Your task to perform on an android device: Open Amazon Image 0: 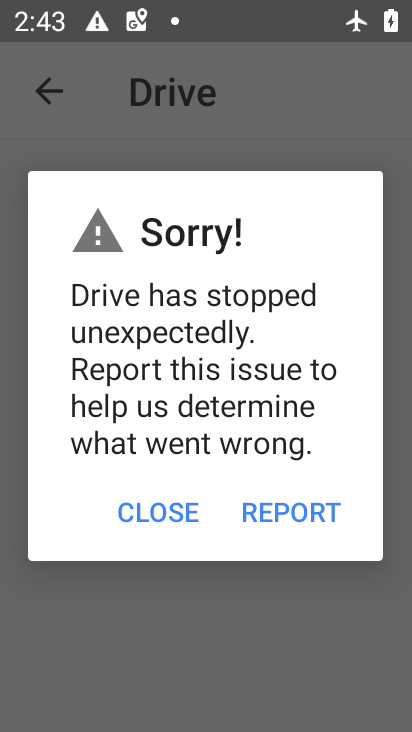
Step 0: click (168, 522)
Your task to perform on an android device: Open Amazon Image 1: 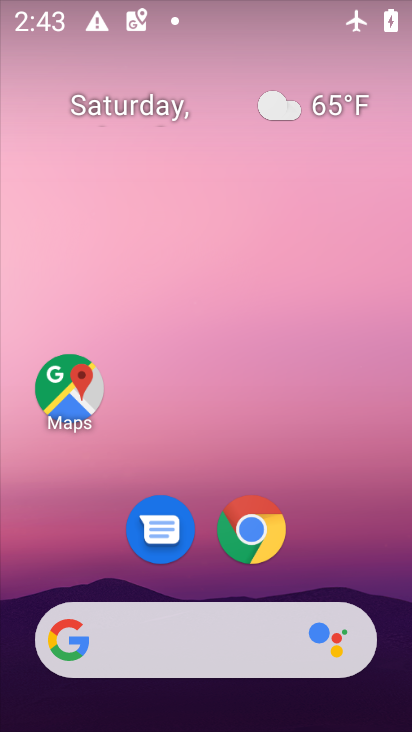
Step 1: press home button
Your task to perform on an android device: Open Amazon Image 2: 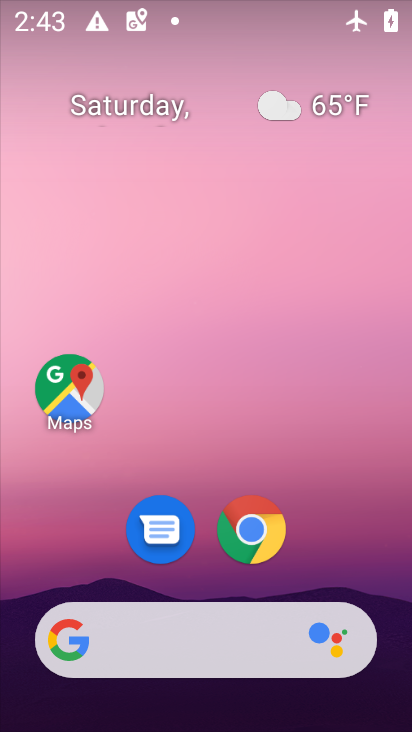
Step 2: click (271, 526)
Your task to perform on an android device: Open Amazon Image 3: 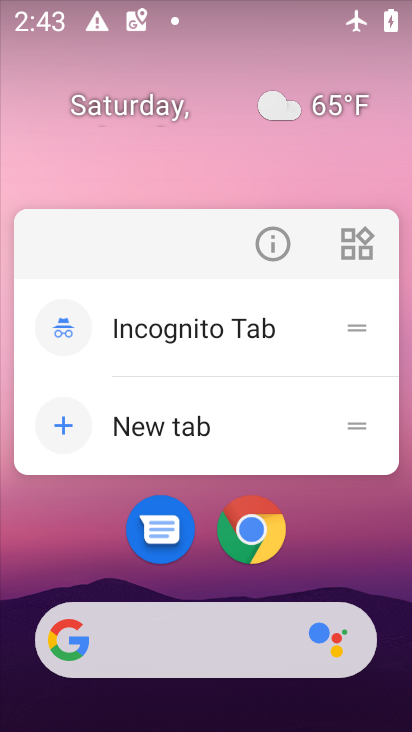
Step 3: click (245, 527)
Your task to perform on an android device: Open Amazon Image 4: 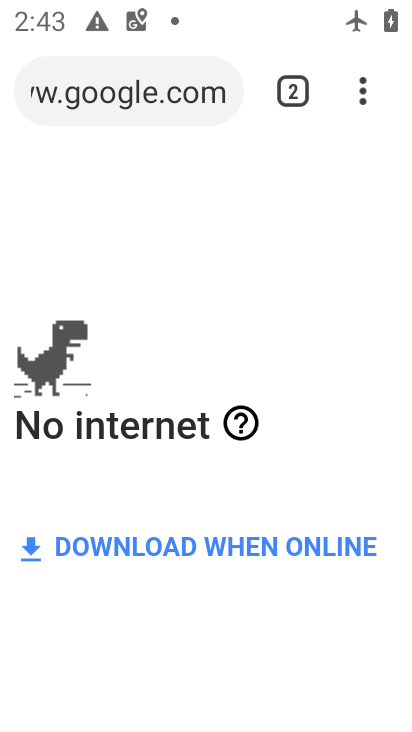
Step 4: click (294, 84)
Your task to perform on an android device: Open Amazon Image 5: 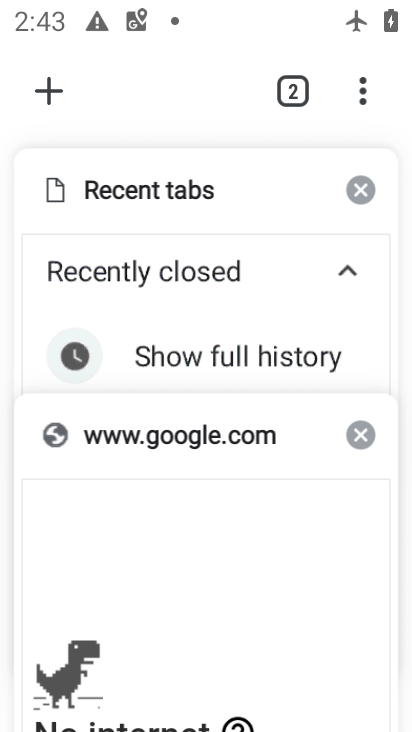
Step 5: click (46, 90)
Your task to perform on an android device: Open Amazon Image 6: 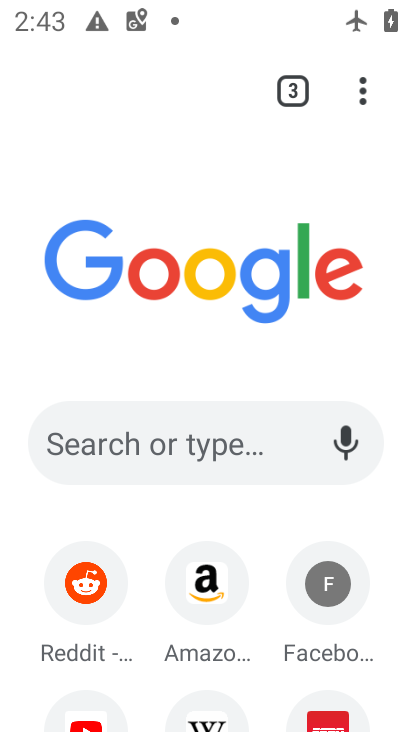
Step 6: click (201, 572)
Your task to perform on an android device: Open Amazon Image 7: 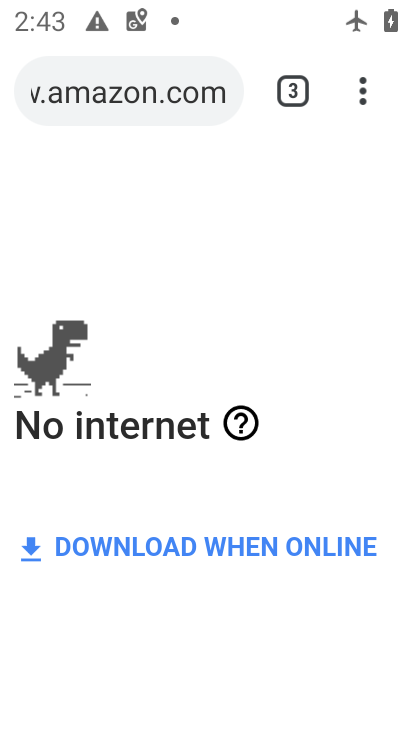
Step 7: task complete